Your task to perform on an android device: check the backup settings in the google photos Image 0: 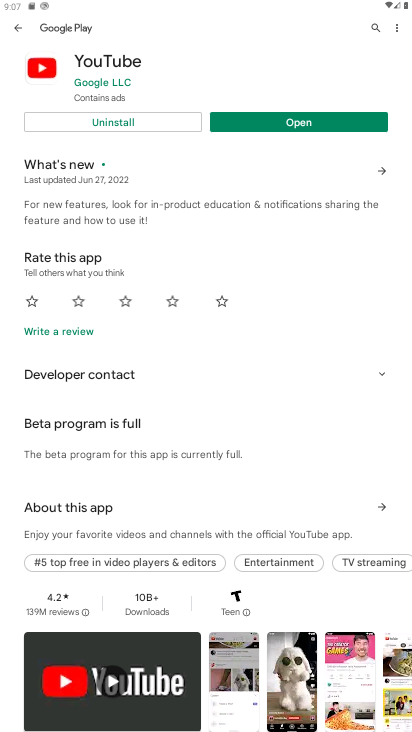
Step 0: press home button
Your task to perform on an android device: check the backup settings in the google photos Image 1: 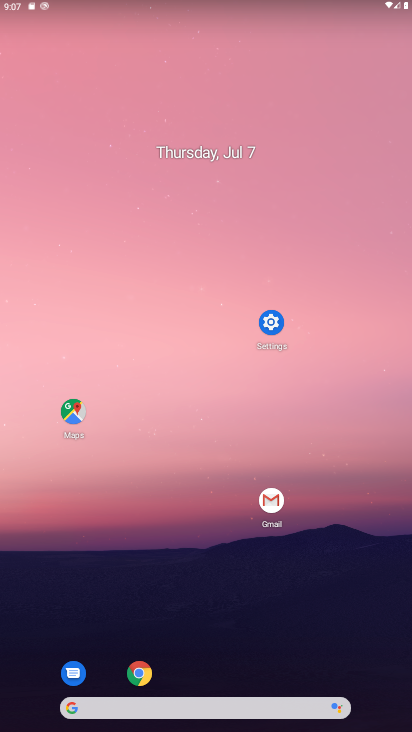
Step 1: drag from (389, 698) to (351, 178)
Your task to perform on an android device: check the backup settings in the google photos Image 2: 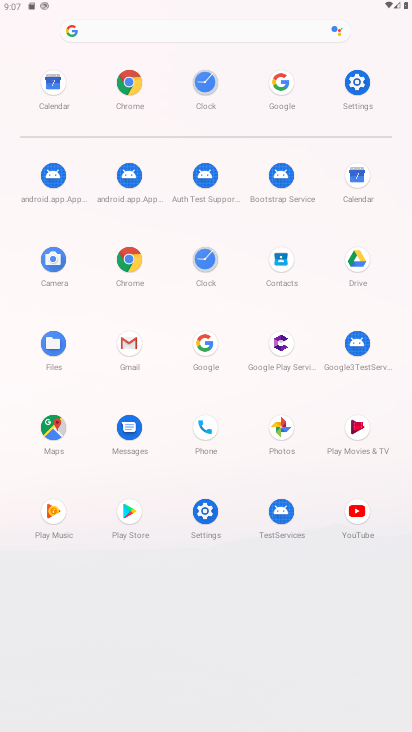
Step 2: click (284, 401)
Your task to perform on an android device: check the backup settings in the google photos Image 3: 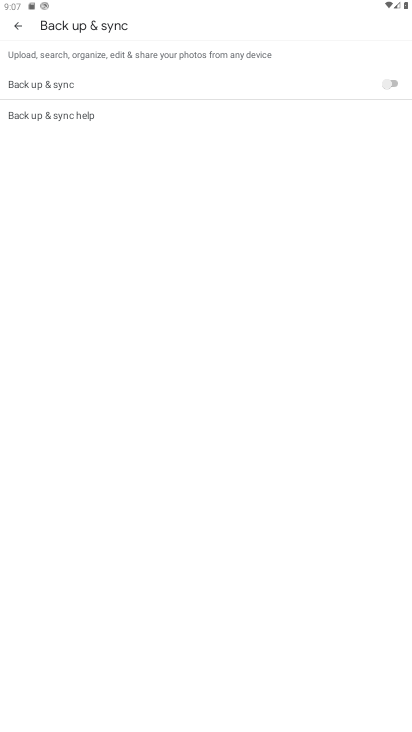
Step 3: click (26, 79)
Your task to perform on an android device: check the backup settings in the google photos Image 4: 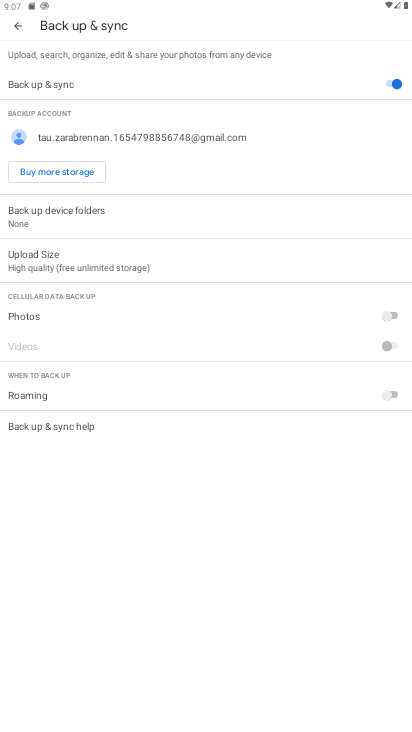
Step 4: click (26, 79)
Your task to perform on an android device: check the backup settings in the google photos Image 5: 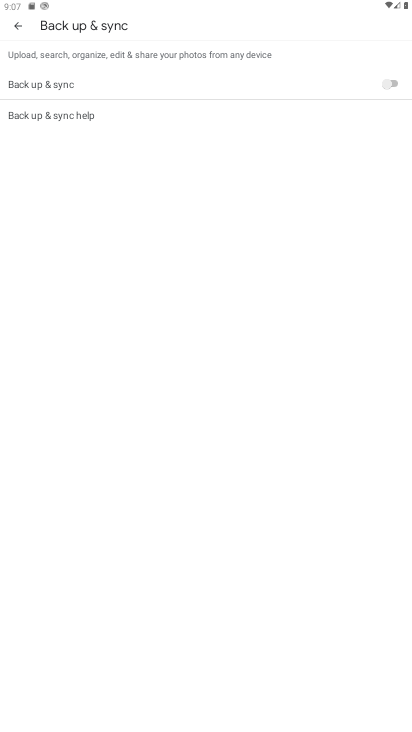
Step 5: click (25, 106)
Your task to perform on an android device: check the backup settings in the google photos Image 6: 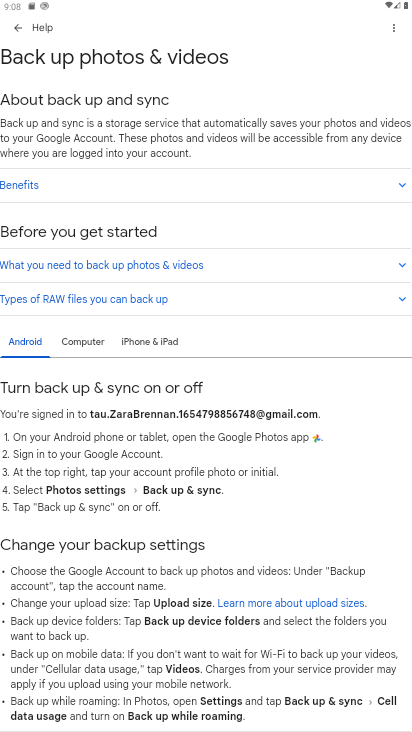
Step 6: drag from (316, 586) to (299, 260)
Your task to perform on an android device: check the backup settings in the google photos Image 7: 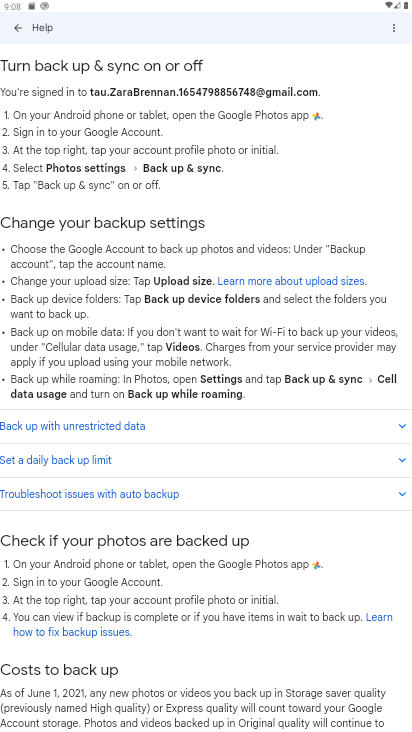
Step 7: drag from (312, 599) to (282, 269)
Your task to perform on an android device: check the backup settings in the google photos Image 8: 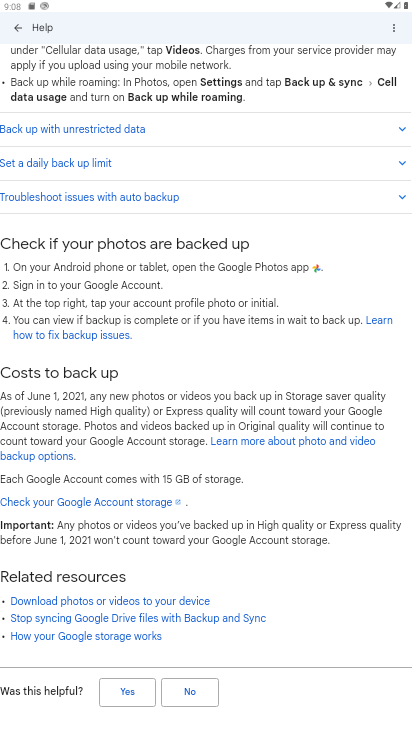
Step 8: drag from (171, 576) to (174, 174)
Your task to perform on an android device: check the backup settings in the google photos Image 9: 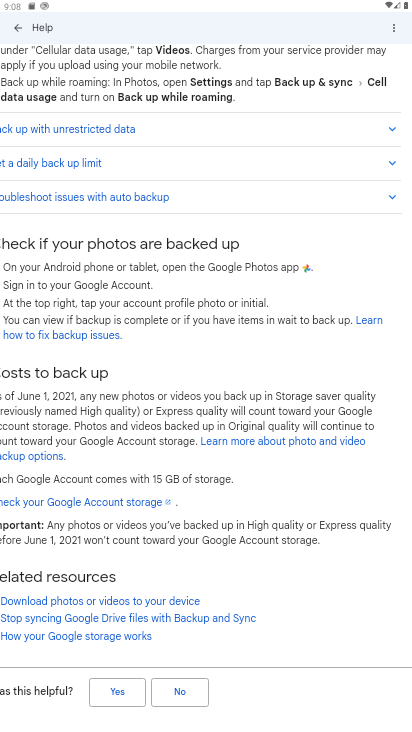
Step 9: click (16, 26)
Your task to perform on an android device: check the backup settings in the google photos Image 10: 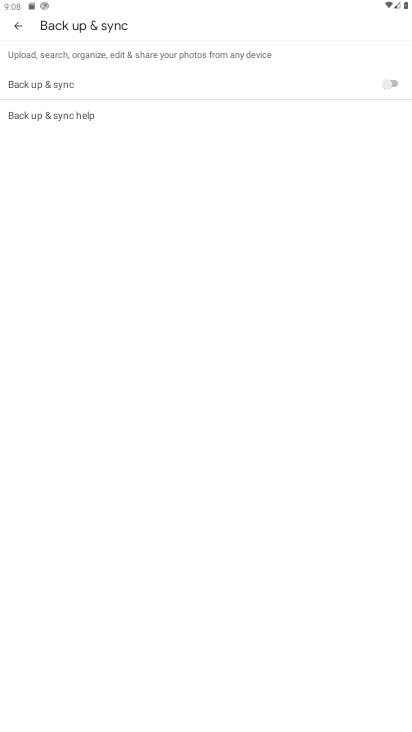
Step 10: task complete